Your task to perform on an android device: Open Maps and search for coffee Image 0: 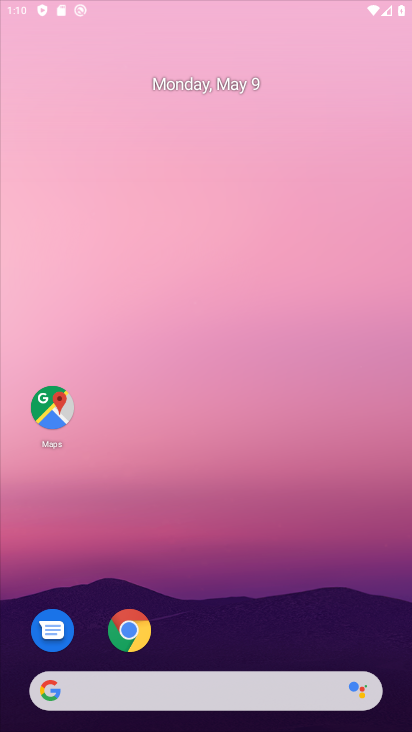
Step 0: click (338, 188)
Your task to perform on an android device: Open Maps and search for coffee Image 1: 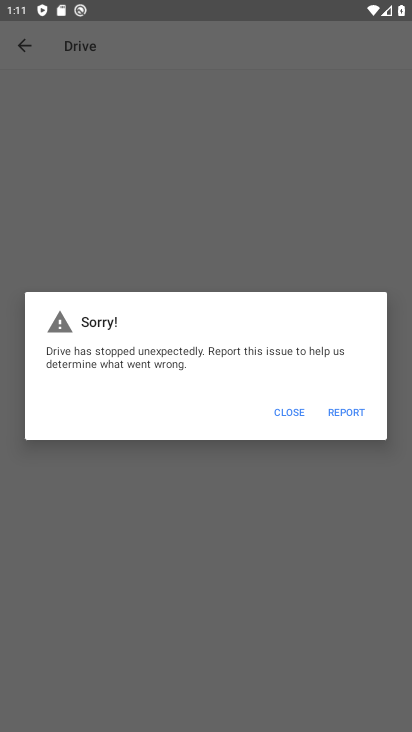
Step 1: click (305, 408)
Your task to perform on an android device: Open Maps and search for coffee Image 2: 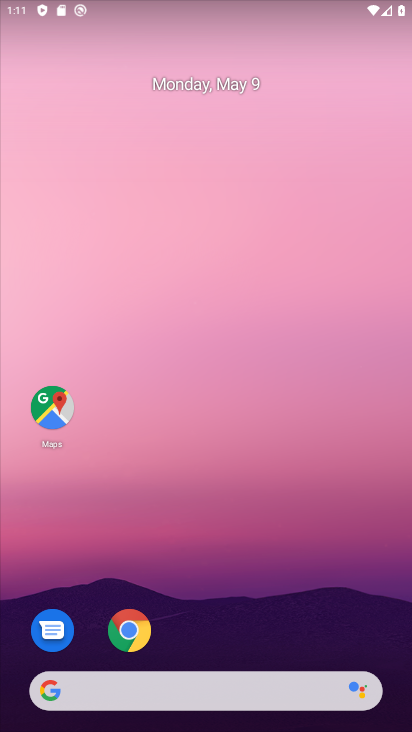
Step 2: drag from (339, 695) to (231, 236)
Your task to perform on an android device: Open Maps and search for coffee Image 3: 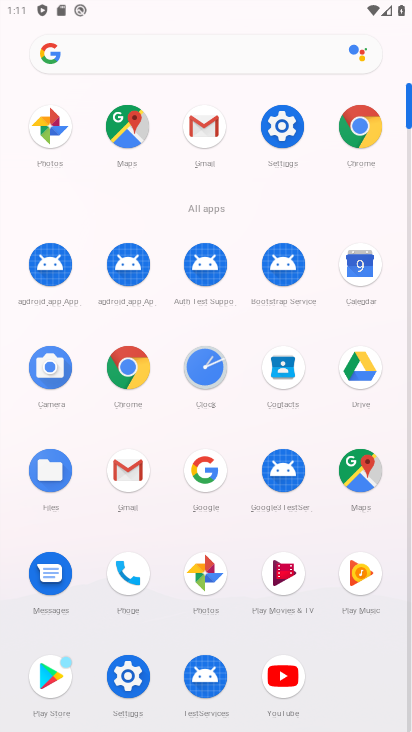
Step 3: click (349, 472)
Your task to perform on an android device: Open Maps and search for coffee Image 4: 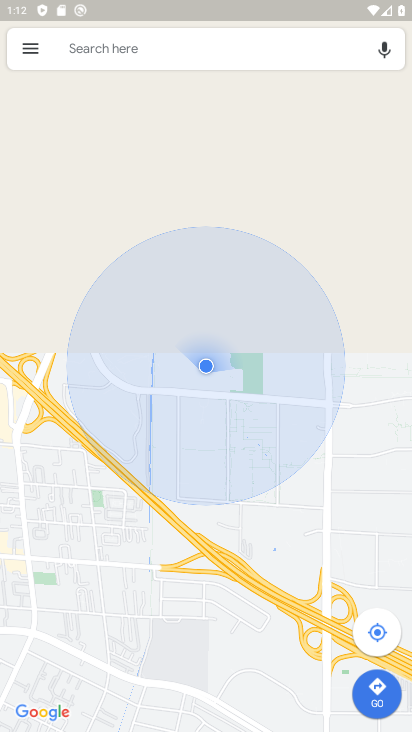
Step 4: click (132, 57)
Your task to perform on an android device: Open Maps and search for coffee Image 5: 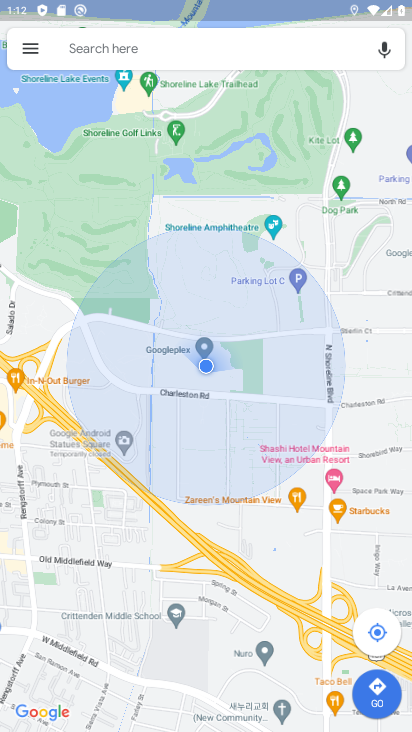
Step 5: click (132, 57)
Your task to perform on an android device: Open Maps and search for coffee Image 6: 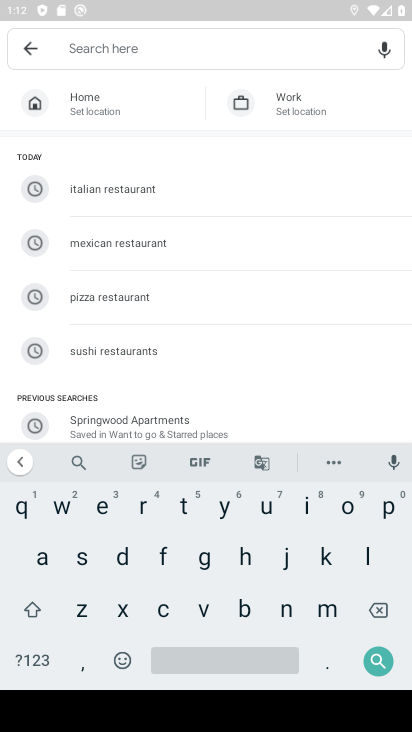
Step 6: click (160, 608)
Your task to perform on an android device: Open Maps and search for coffee Image 7: 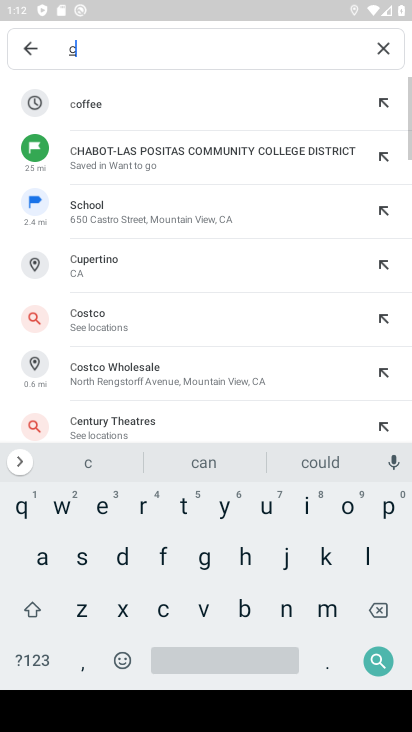
Step 7: click (104, 117)
Your task to perform on an android device: Open Maps and search for coffee Image 8: 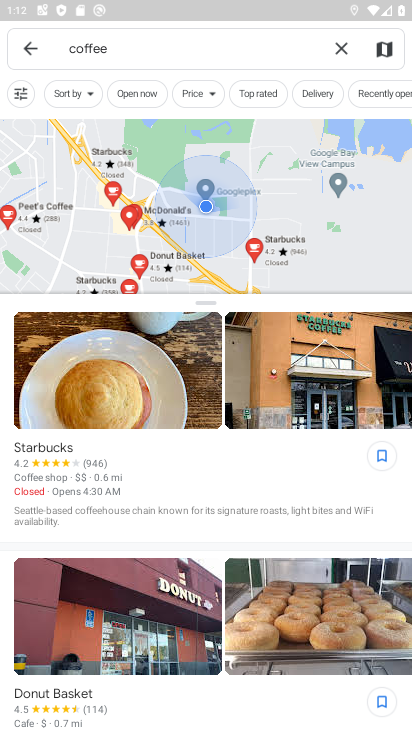
Step 8: click (132, 189)
Your task to perform on an android device: Open Maps and search for coffee Image 9: 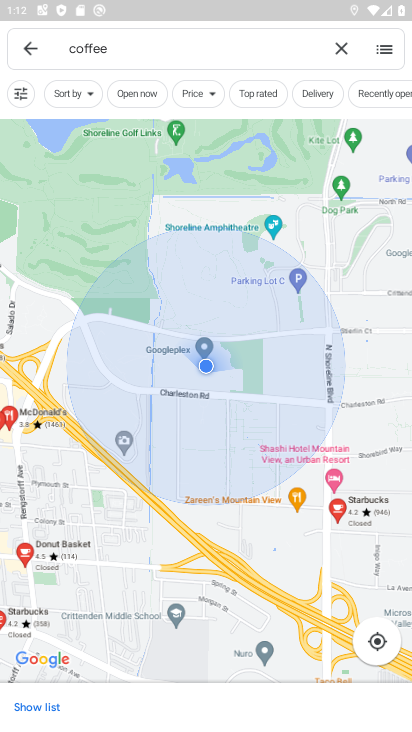
Step 9: task complete